Your task to perform on an android device: open the mobile data screen to see how much data has been used Image 0: 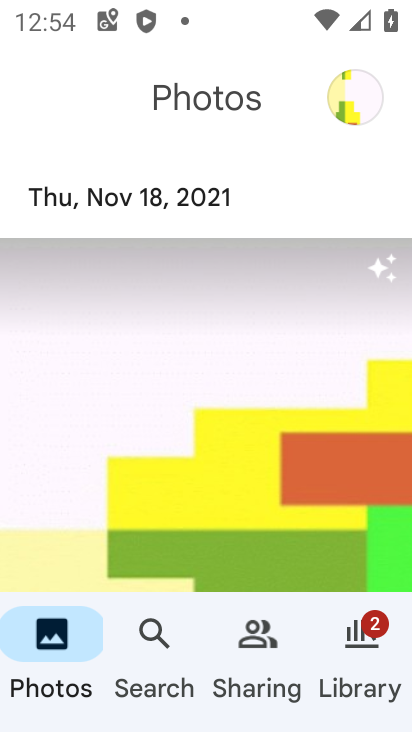
Step 0: press home button
Your task to perform on an android device: open the mobile data screen to see how much data has been used Image 1: 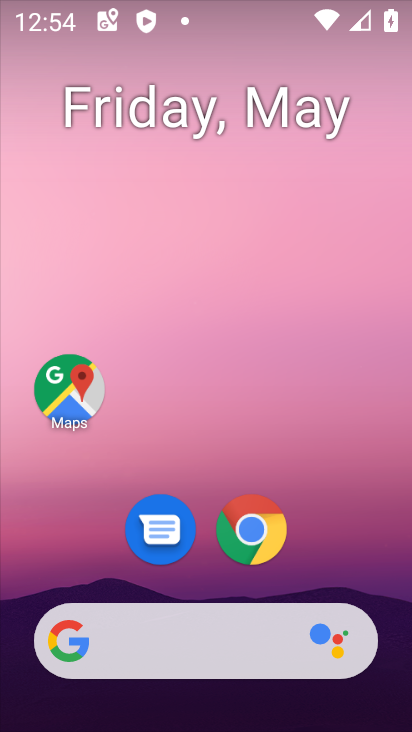
Step 1: click (322, 536)
Your task to perform on an android device: open the mobile data screen to see how much data has been used Image 2: 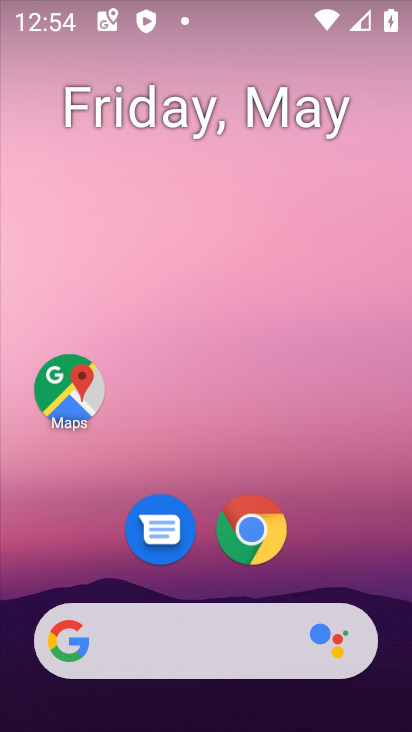
Step 2: drag from (322, 536) to (341, 74)
Your task to perform on an android device: open the mobile data screen to see how much data has been used Image 3: 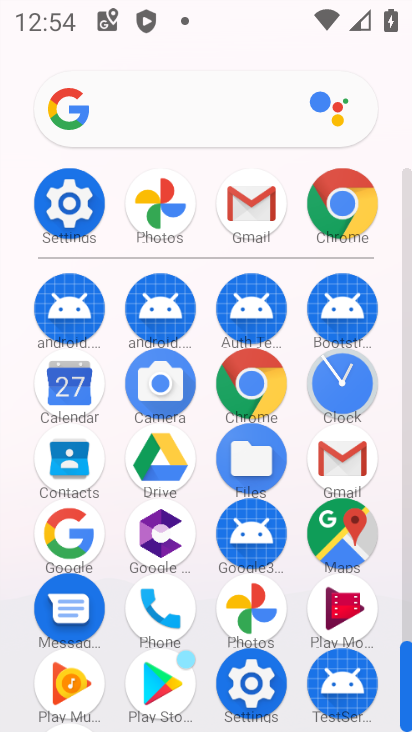
Step 3: click (69, 197)
Your task to perform on an android device: open the mobile data screen to see how much data has been used Image 4: 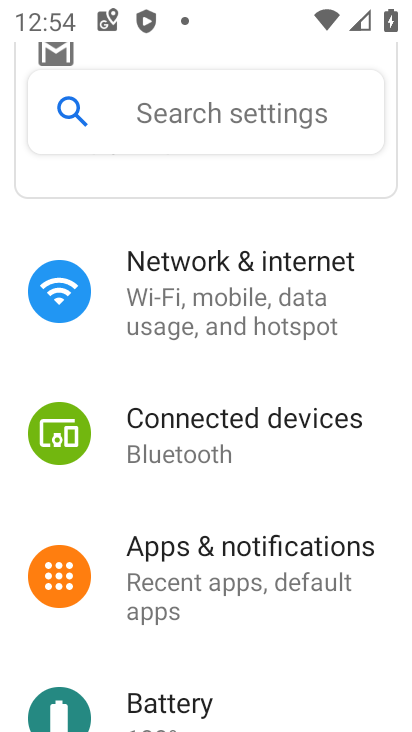
Step 4: click (175, 307)
Your task to perform on an android device: open the mobile data screen to see how much data has been used Image 5: 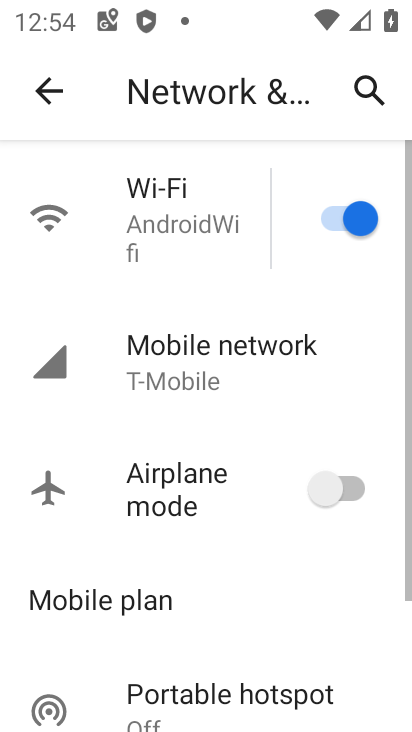
Step 5: click (159, 332)
Your task to perform on an android device: open the mobile data screen to see how much data has been used Image 6: 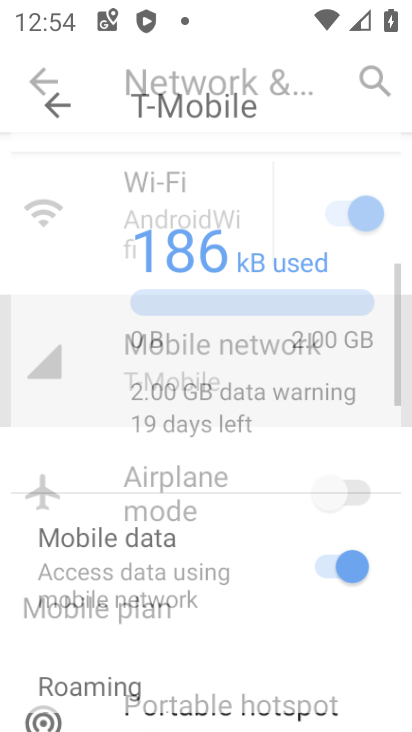
Step 6: task complete